Your task to perform on an android device: turn on bluetooth scan Image 0: 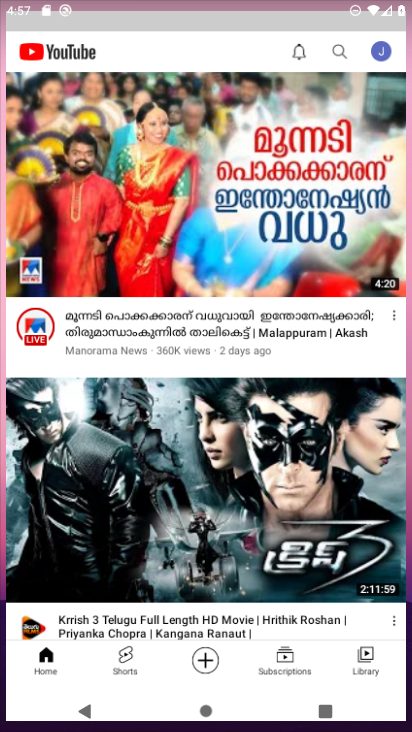
Step 0: press home button
Your task to perform on an android device: turn on bluetooth scan Image 1: 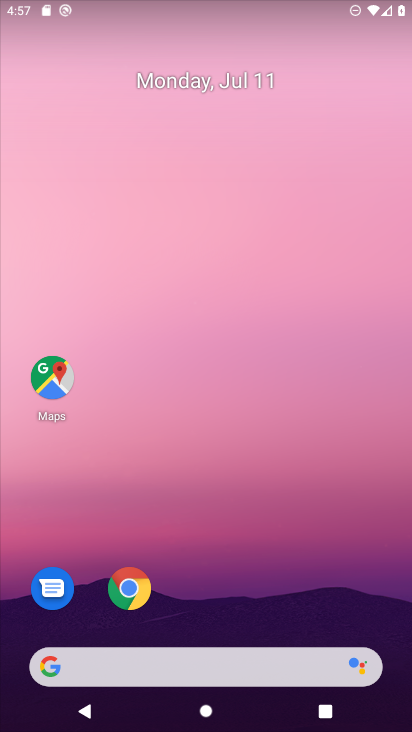
Step 1: drag from (195, 635) to (149, 199)
Your task to perform on an android device: turn on bluetooth scan Image 2: 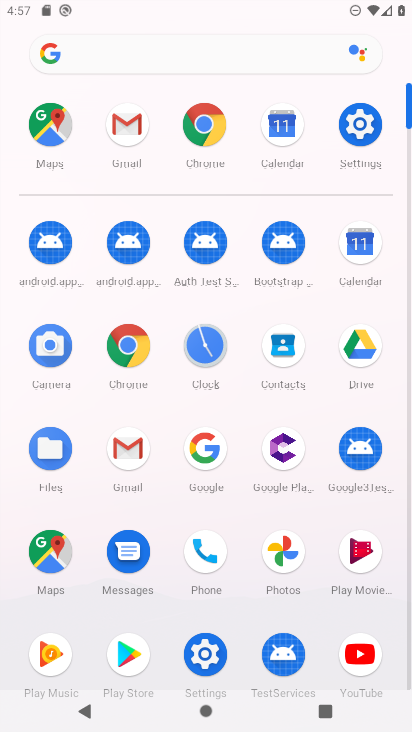
Step 2: click (362, 133)
Your task to perform on an android device: turn on bluetooth scan Image 3: 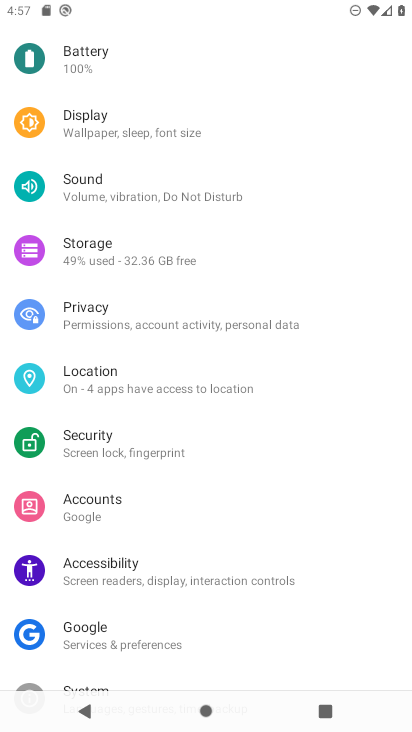
Step 3: click (86, 377)
Your task to perform on an android device: turn on bluetooth scan Image 4: 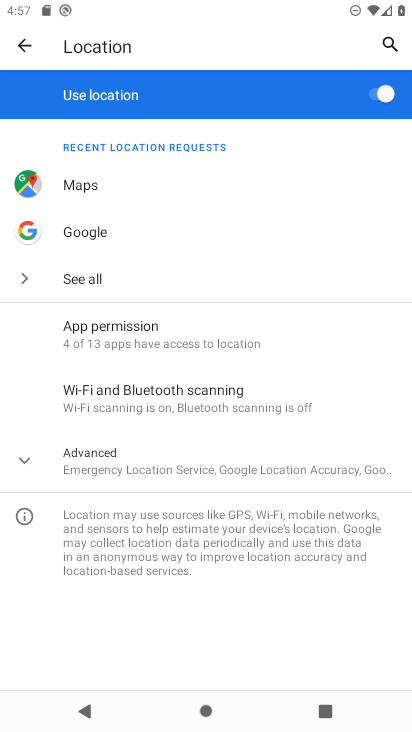
Step 4: click (132, 392)
Your task to perform on an android device: turn on bluetooth scan Image 5: 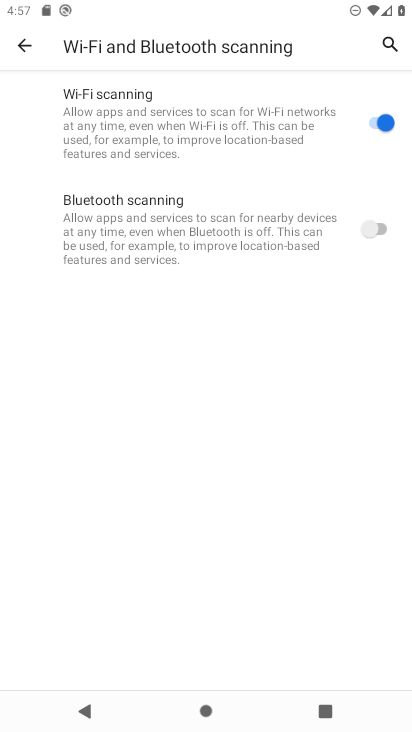
Step 5: click (377, 229)
Your task to perform on an android device: turn on bluetooth scan Image 6: 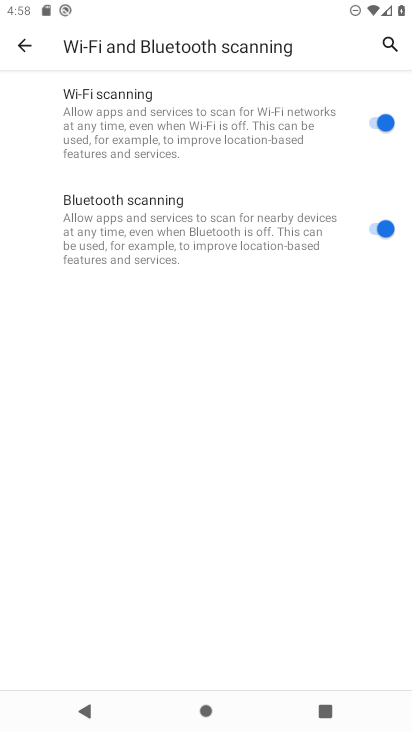
Step 6: task complete